Your task to perform on an android device: Open the calendar and show me this week's events? Image 0: 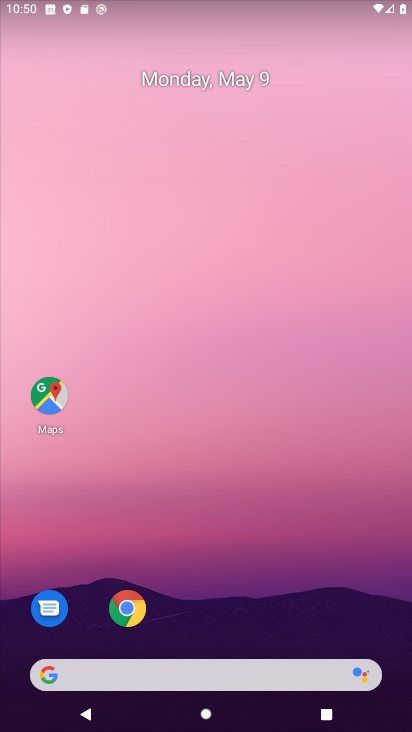
Step 0: drag from (154, 651) to (300, 55)
Your task to perform on an android device: Open the calendar and show me this week's events? Image 1: 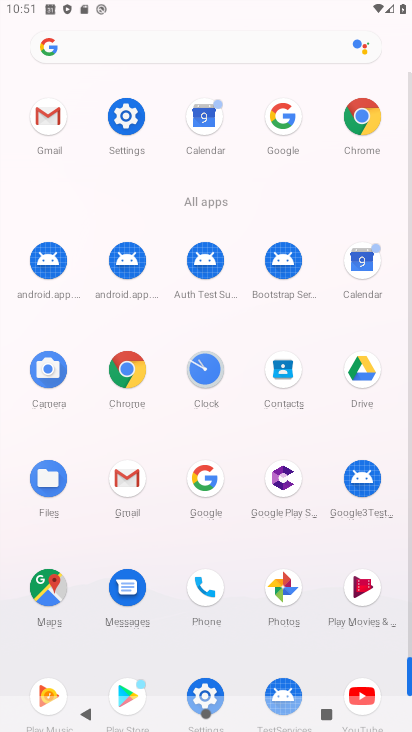
Step 1: click (207, 124)
Your task to perform on an android device: Open the calendar and show me this week's events? Image 2: 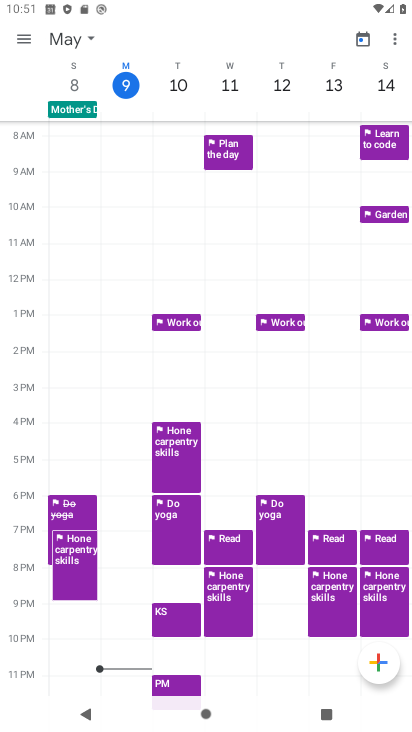
Step 2: task complete